Your task to perform on an android device: Open battery settings Image 0: 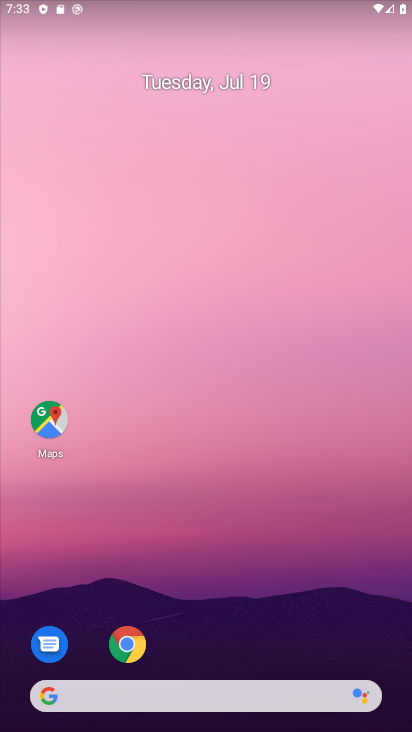
Step 0: click (190, 209)
Your task to perform on an android device: Open battery settings Image 1: 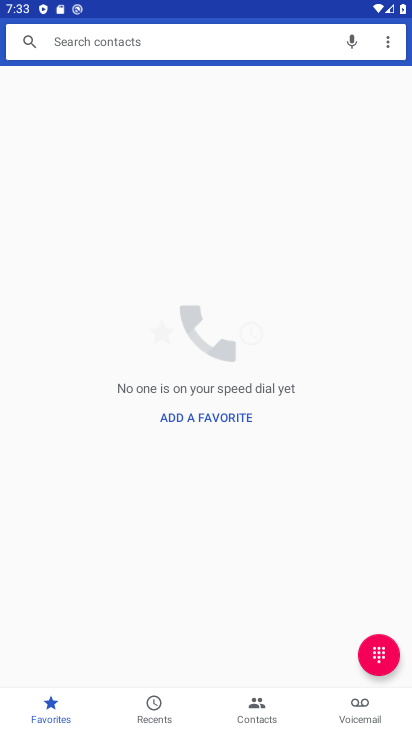
Step 1: drag from (135, 681) to (135, 207)
Your task to perform on an android device: Open battery settings Image 2: 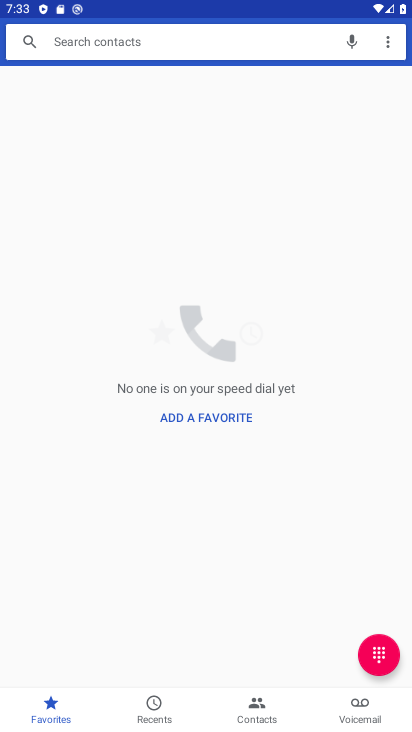
Step 2: press home button
Your task to perform on an android device: Open battery settings Image 3: 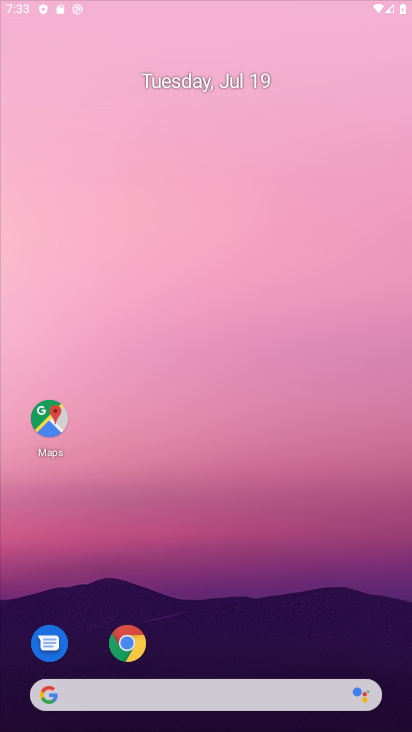
Step 3: press back button
Your task to perform on an android device: Open battery settings Image 4: 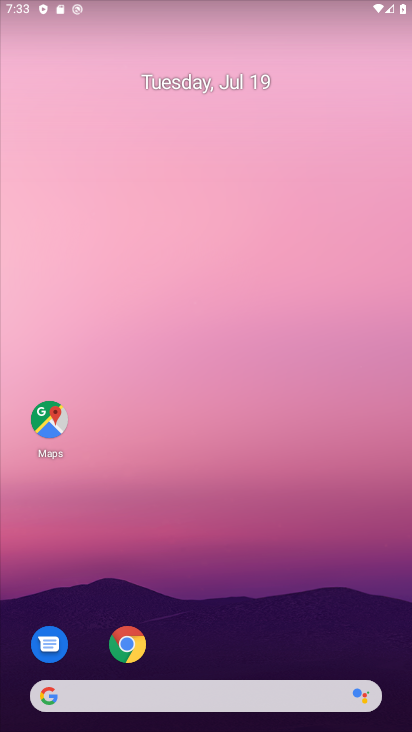
Step 4: drag from (175, 583) to (164, 177)
Your task to perform on an android device: Open battery settings Image 5: 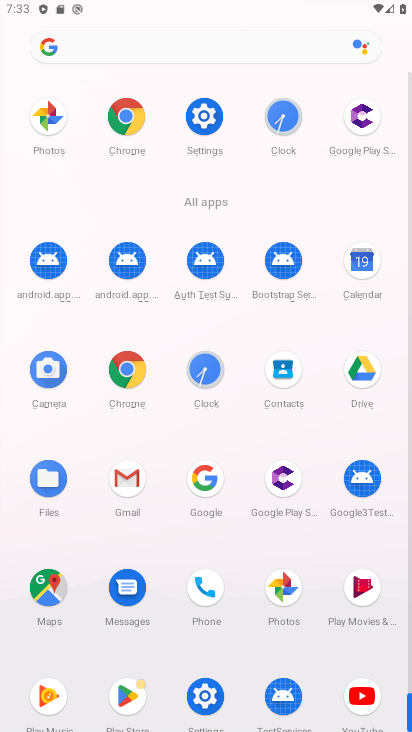
Step 5: click (208, 118)
Your task to perform on an android device: Open battery settings Image 6: 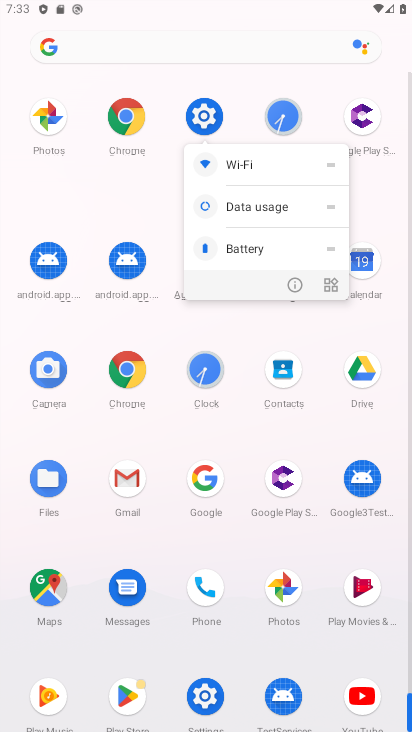
Step 6: click (198, 132)
Your task to perform on an android device: Open battery settings Image 7: 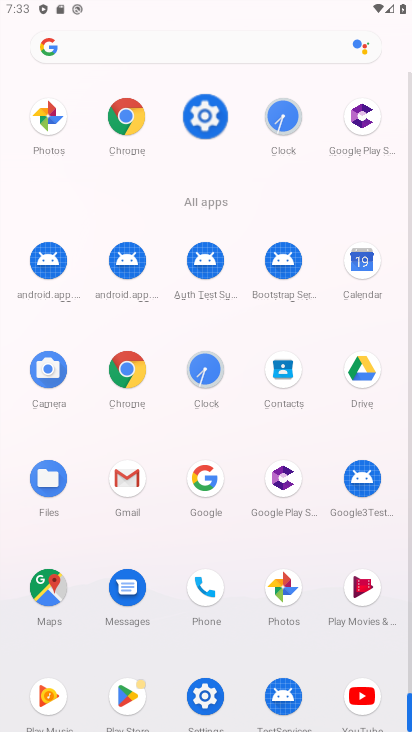
Step 7: click (201, 116)
Your task to perform on an android device: Open battery settings Image 8: 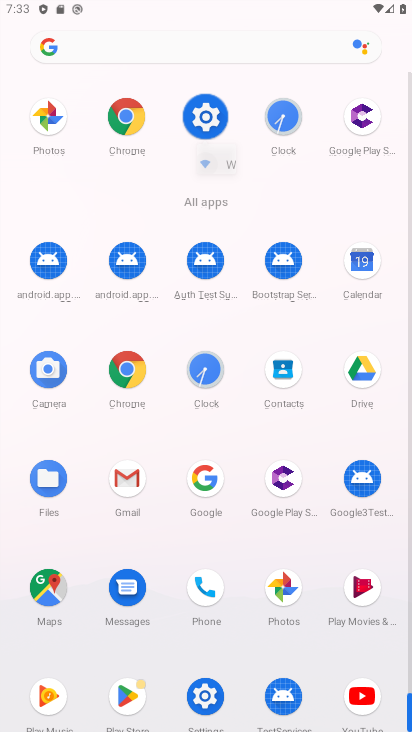
Step 8: click (201, 116)
Your task to perform on an android device: Open battery settings Image 9: 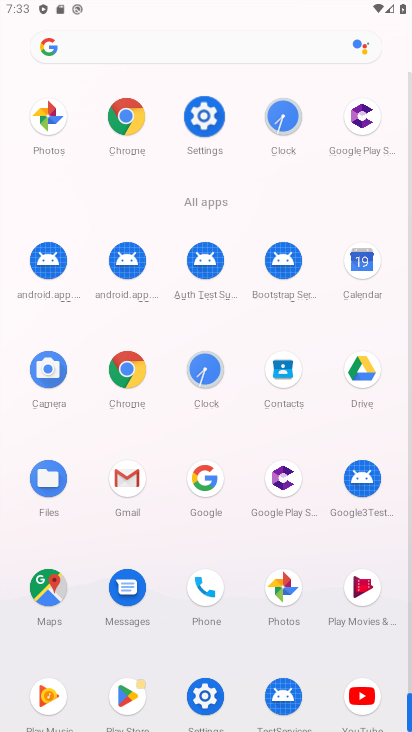
Step 9: click (201, 116)
Your task to perform on an android device: Open battery settings Image 10: 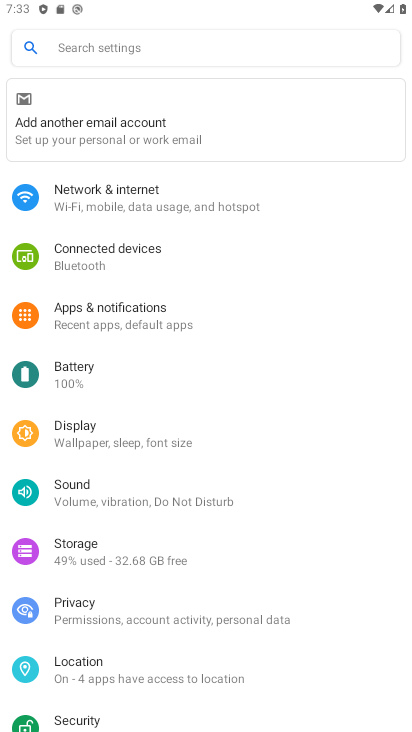
Step 10: click (69, 373)
Your task to perform on an android device: Open battery settings Image 11: 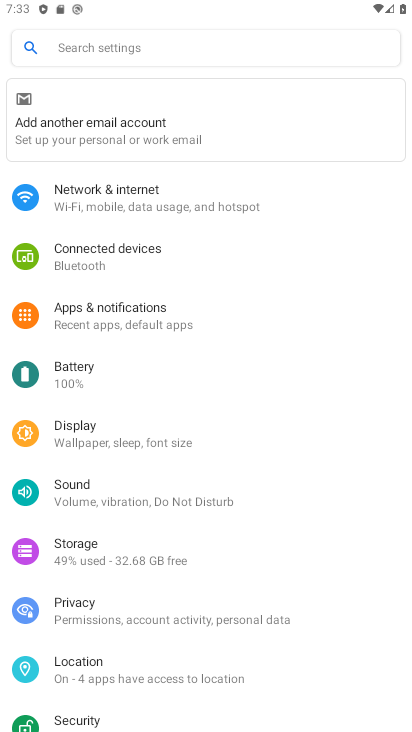
Step 11: click (69, 373)
Your task to perform on an android device: Open battery settings Image 12: 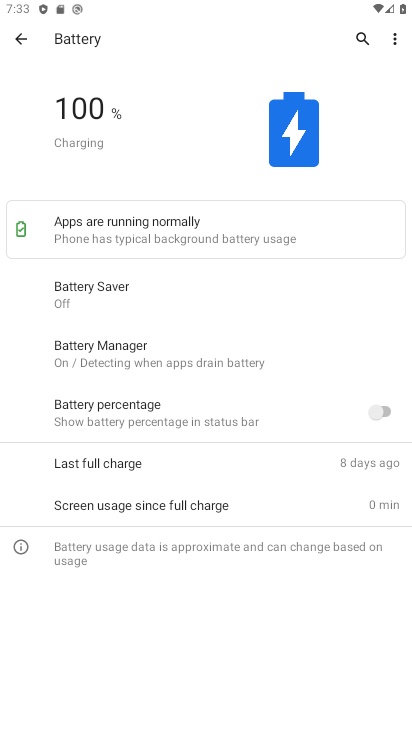
Step 12: task complete